Your task to perform on an android device: turn off javascript in the chrome app Image 0: 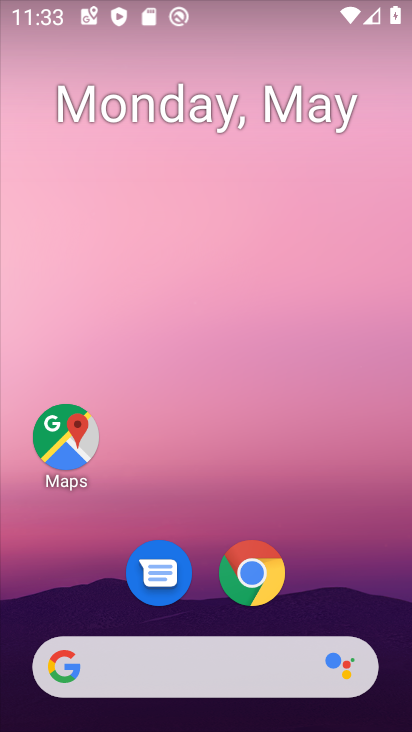
Step 0: drag from (279, 577) to (282, 249)
Your task to perform on an android device: turn off javascript in the chrome app Image 1: 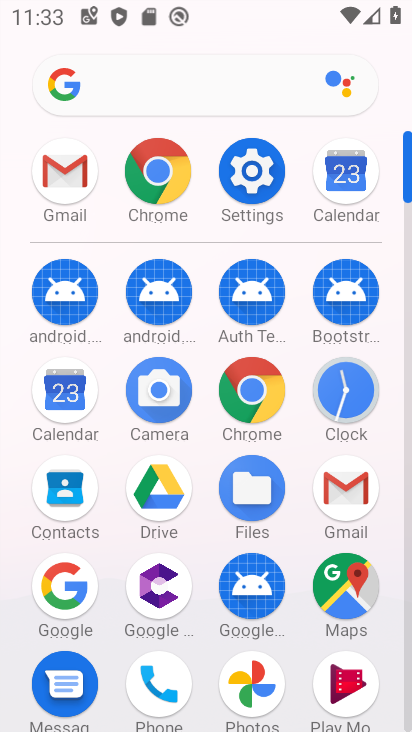
Step 1: click (161, 174)
Your task to perform on an android device: turn off javascript in the chrome app Image 2: 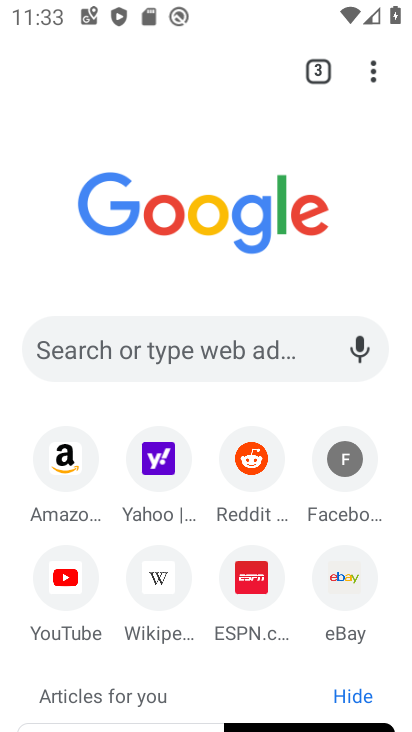
Step 2: click (368, 103)
Your task to perform on an android device: turn off javascript in the chrome app Image 3: 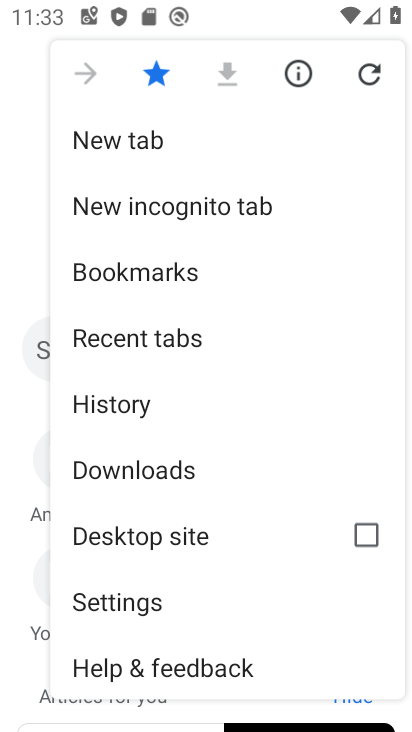
Step 3: click (310, 248)
Your task to perform on an android device: turn off javascript in the chrome app Image 4: 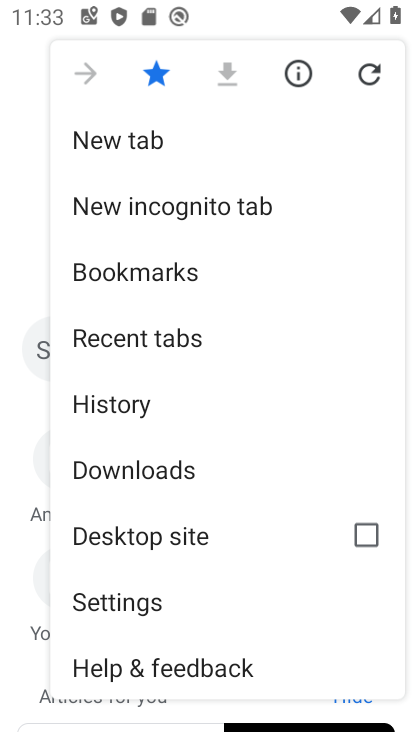
Step 4: click (187, 580)
Your task to perform on an android device: turn off javascript in the chrome app Image 5: 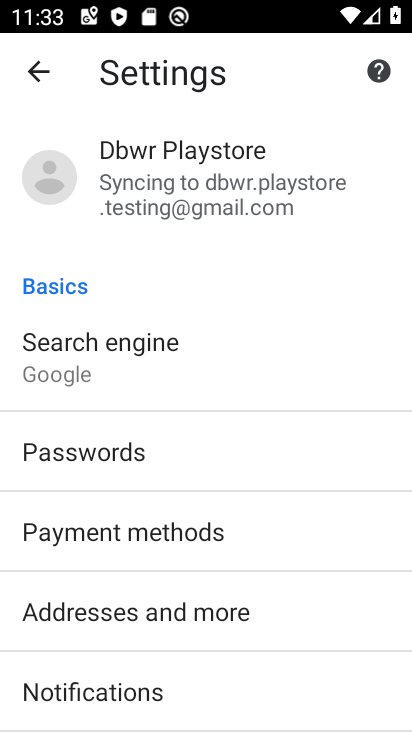
Step 5: drag from (187, 580) to (206, 360)
Your task to perform on an android device: turn off javascript in the chrome app Image 6: 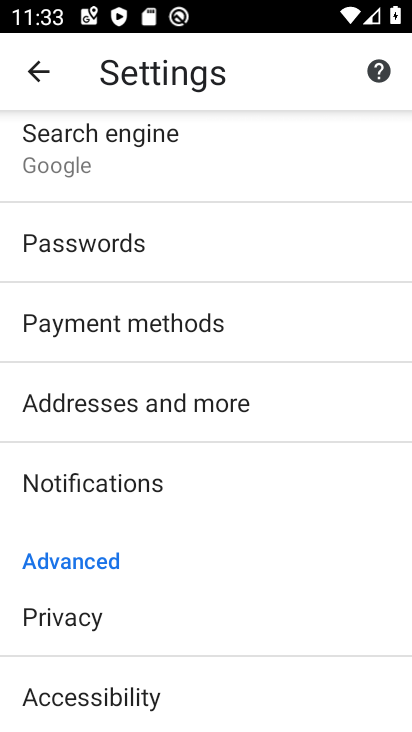
Step 6: drag from (205, 481) to (184, 190)
Your task to perform on an android device: turn off javascript in the chrome app Image 7: 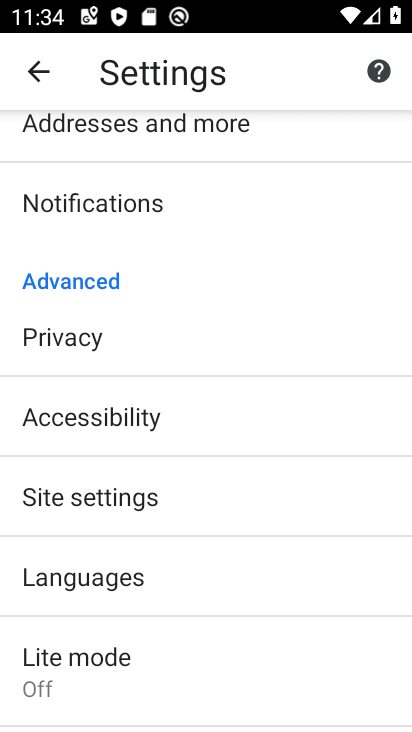
Step 7: drag from (249, 542) to (245, 187)
Your task to perform on an android device: turn off javascript in the chrome app Image 8: 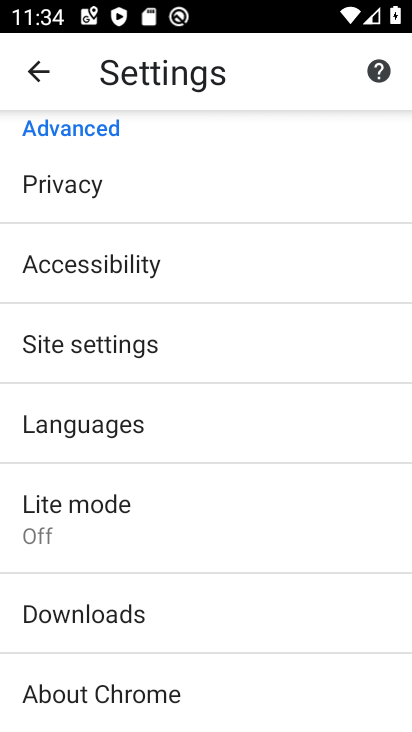
Step 8: click (140, 353)
Your task to perform on an android device: turn off javascript in the chrome app Image 9: 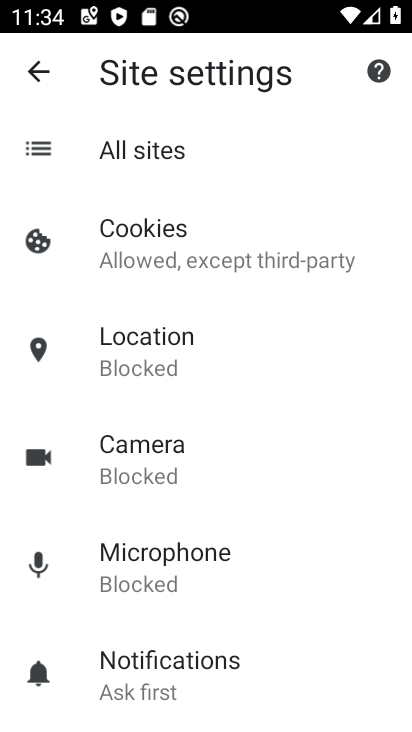
Step 9: drag from (162, 477) to (169, 77)
Your task to perform on an android device: turn off javascript in the chrome app Image 10: 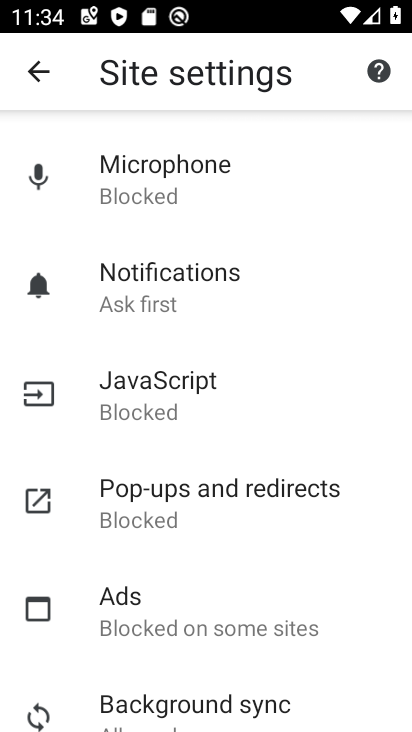
Step 10: click (162, 391)
Your task to perform on an android device: turn off javascript in the chrome app Image 11: 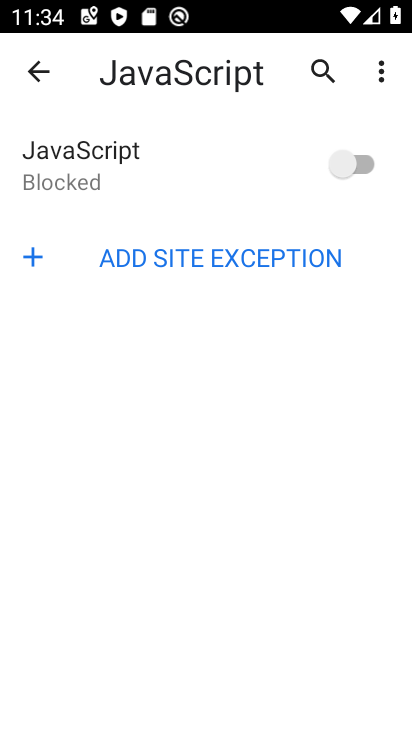
Step 11: task complete